Your task to perform on an android device: check google app version Image 0: 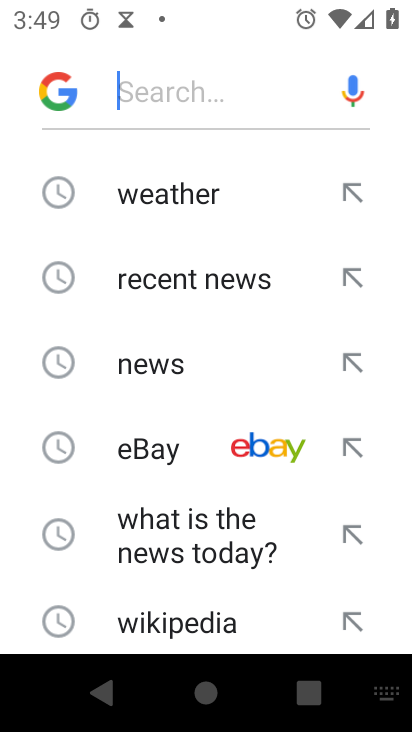
Step 0: press home button
Your task to perform on an android device: check google app version Image 1: 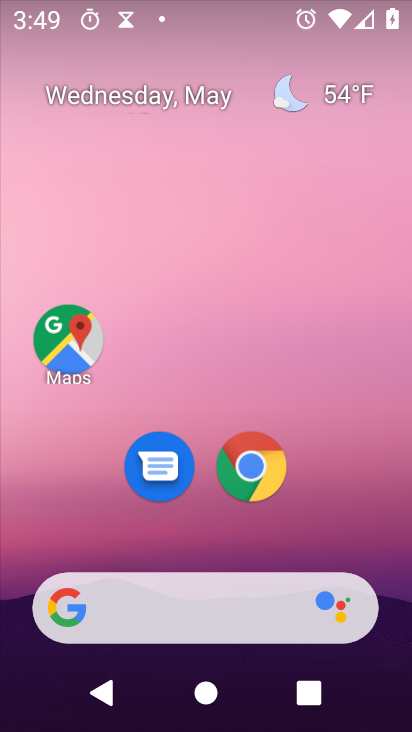
Step 1: drag from (391, 595) to (279, 170)
Your task to perform on an android device: check google app version Image 2: 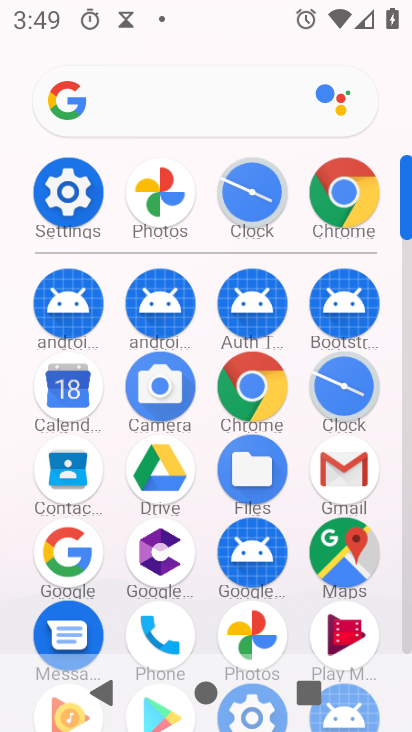
Step 2: click (355, 209)
Your task to perform on an android device: check google app version Image 3: 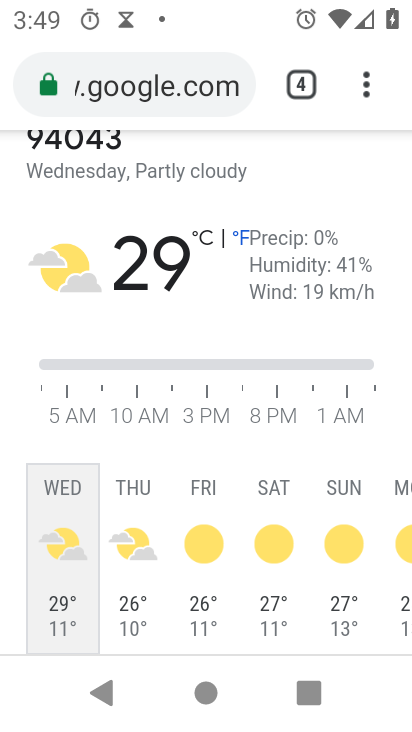
Step 3: click (368, 83)
Your task to perform on an android device: check google app version Image 4: 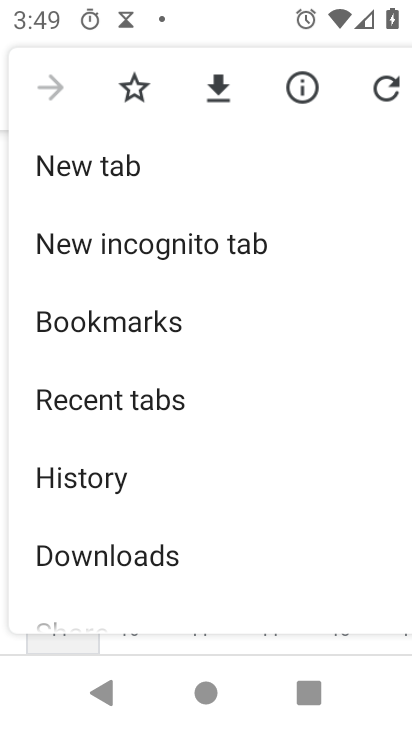
Step 4: drag from (305, 620) to (235, 35)
Your task to perform on an android device: check google app version Image 5: 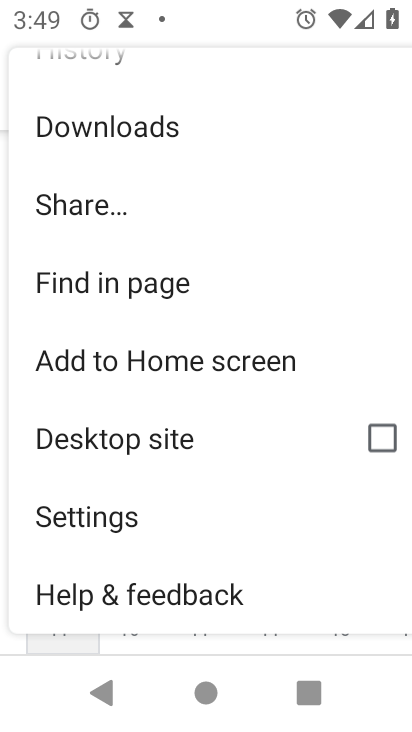
Step 5: click (248, 589)
Your task to perform on an android device: check google app version Image 6: 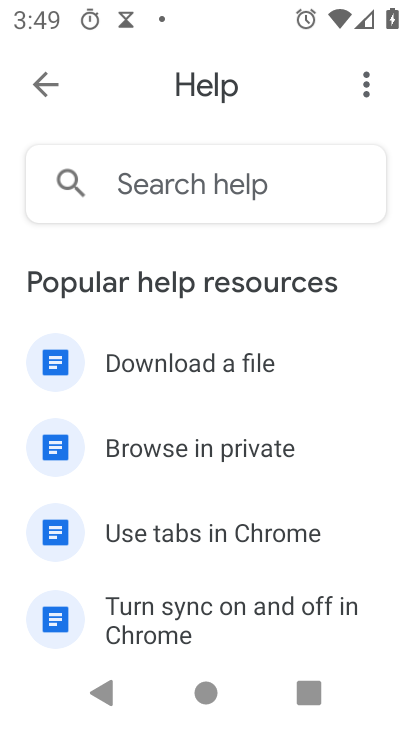
Step 6: click (378, 71)
Your task to perform on an android device: check google app version Image 7: 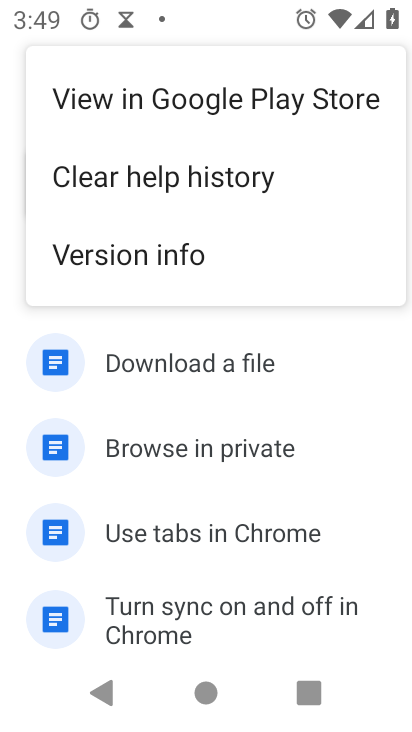
Step 7: click (299, 261)
Your task to perform on an android device: check google app version Image 8: 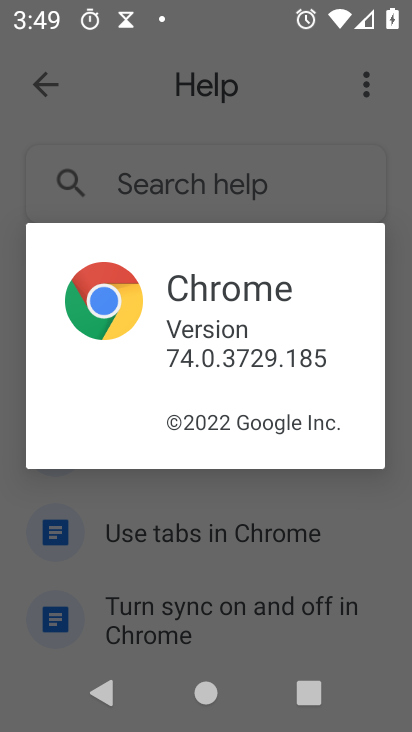
Step 8: task complete